Your task to perform on an android device: Go to ESPN.com Image 0: 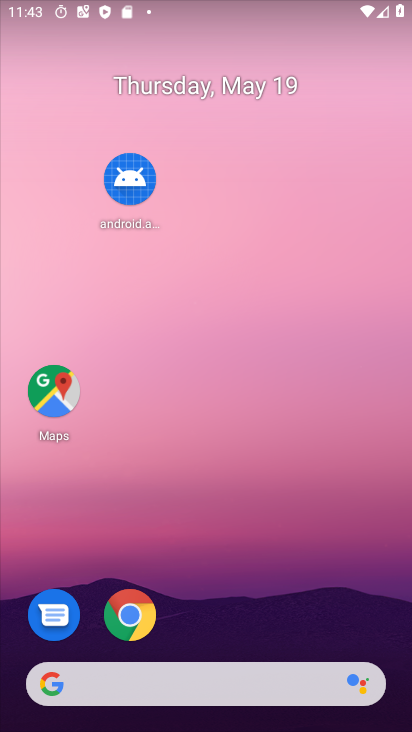
Step 0: click (142, 608)
Your task to perform on an android device: Go to ESPN.com Image 1: 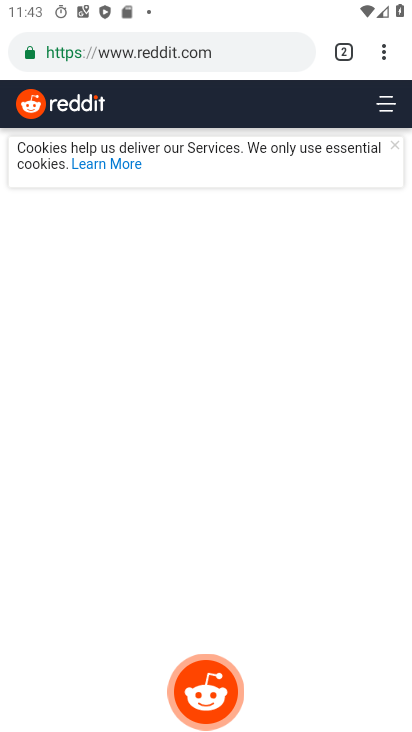
Step 1: click (260, 50)
Your task to perform on an android device: Go to ESPN.com Image 2: 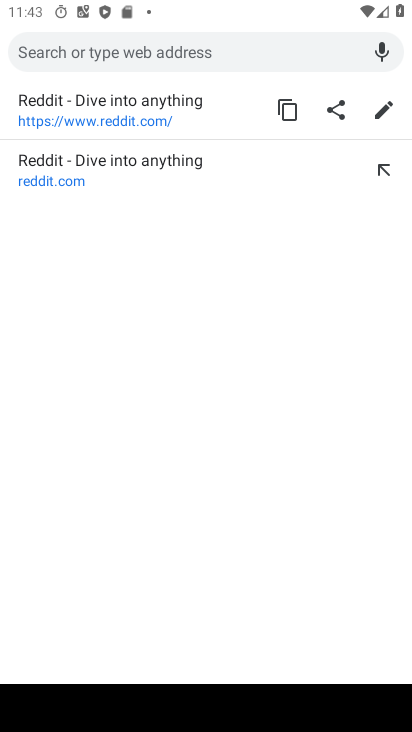
Step 2: type "espn.com"
Your task to perform on an android device: Go to ESPN.com Image 3: 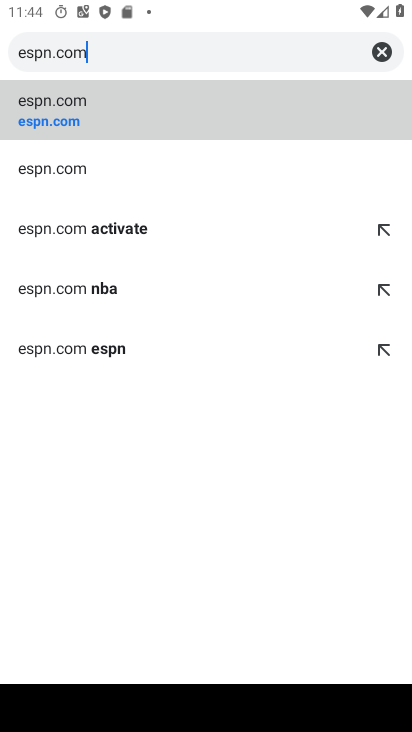
Step 3: click (276, 106)
Your task to perform on an android device: Go to ESPN.com Image 4: 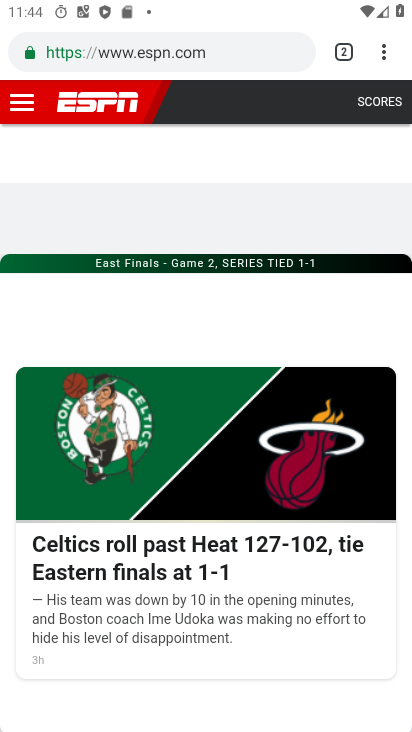
Step 4: task complete